Your task to perform on an android device: What's on Reddit Image 0: 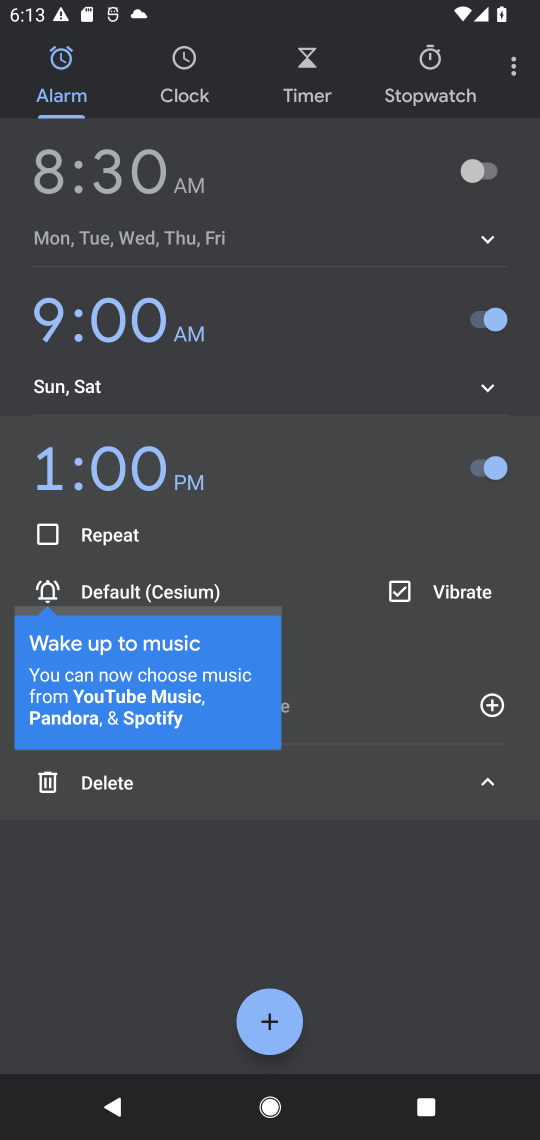
Step 0: press home button
Your task to perform on an android device: What's on Reddit Image 1: 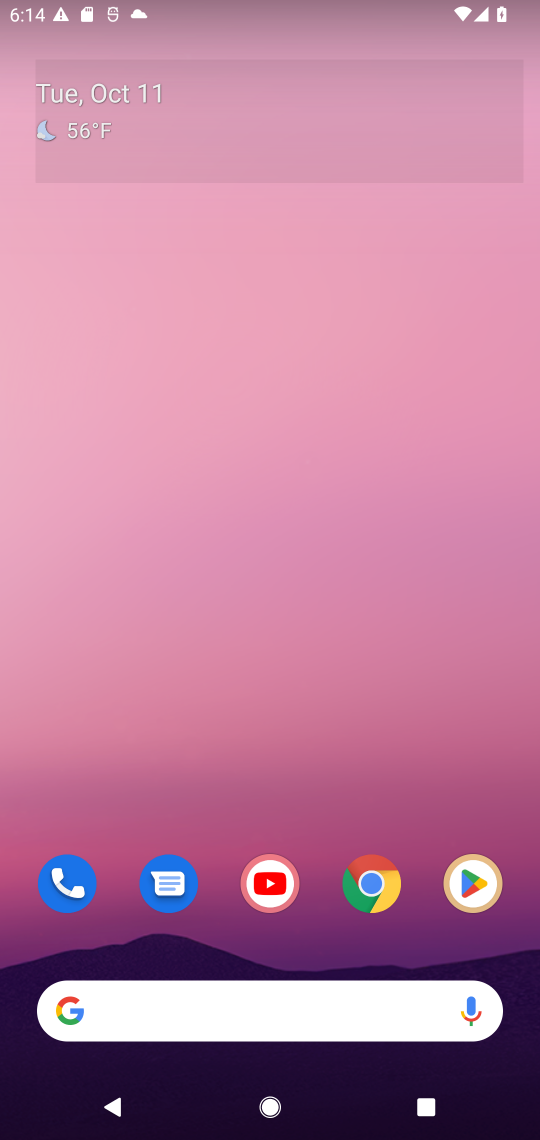
Step 1: drag from (328, 546) to (327, 254)
Your task to perform on an android device: What's on Reddit Image 2: 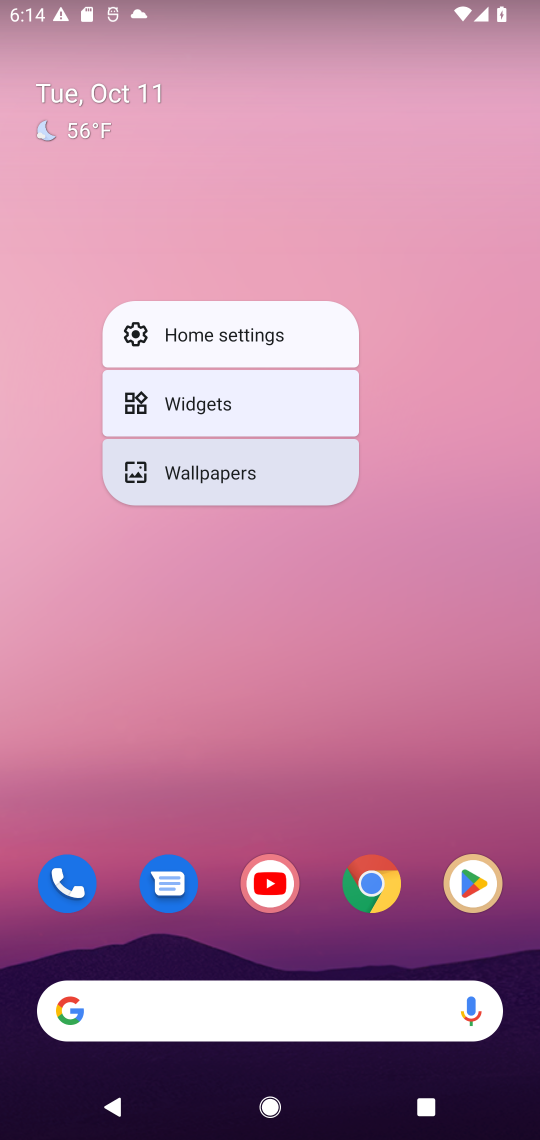
Step 2: click (474, 382)
Your task to perform on an android device: What's on Reddit Image 3: 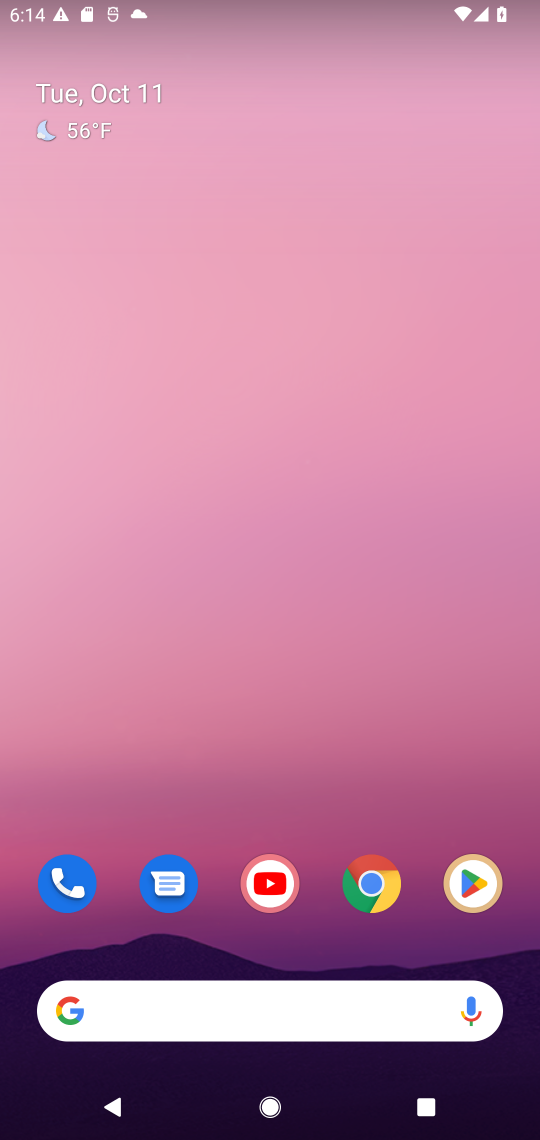
Step 3: drag from (335, 952) to (322, 370)
Your task to perform on an android device: What's on Reddit Image 4: 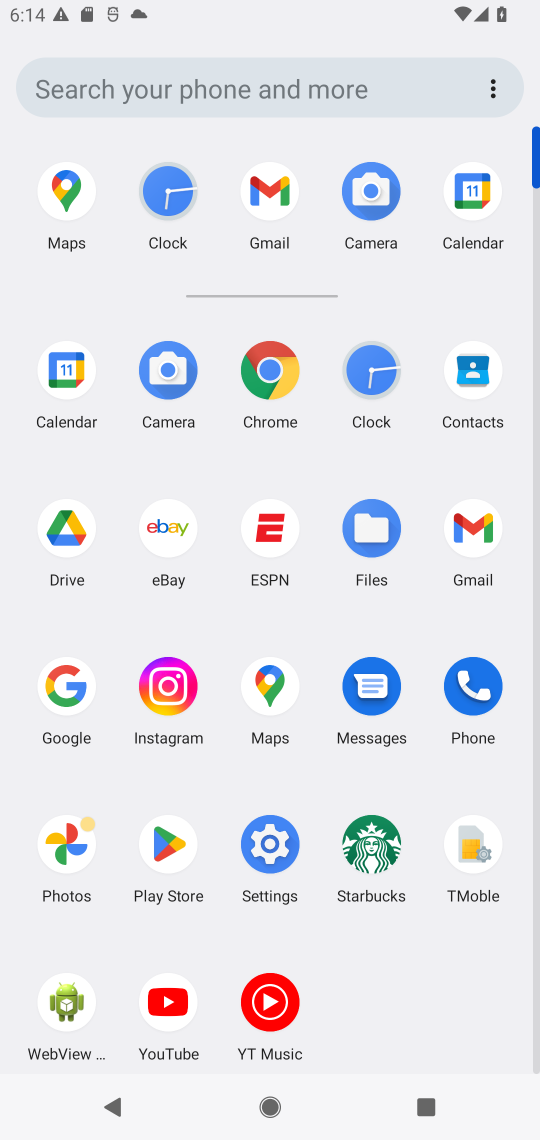
Step 4: click (266, 363)
Your task to perform on an android device: What's on Reddit Image 5: 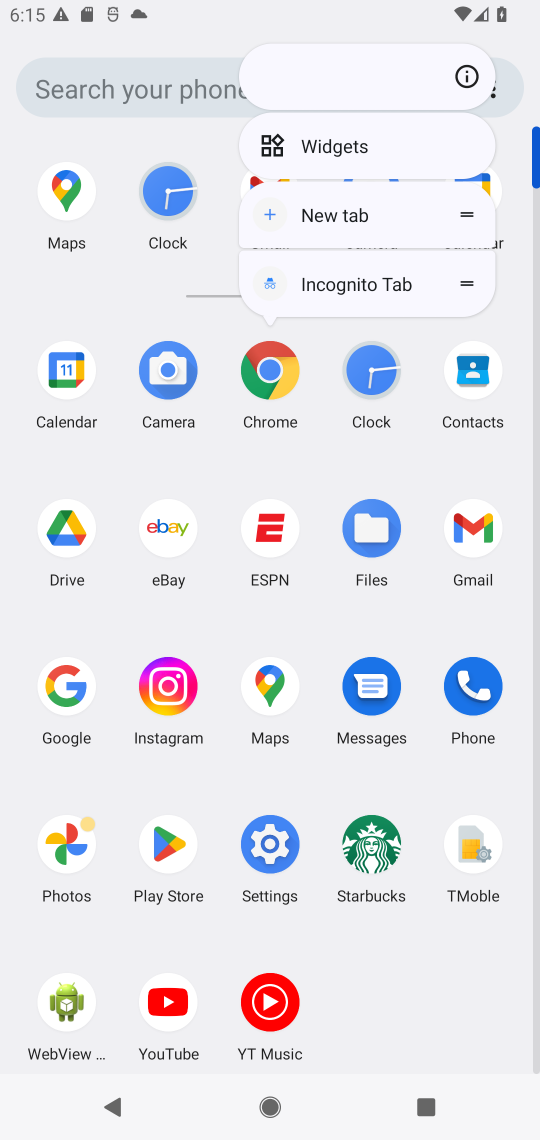
Step 5: click (270, 372)
Your task to perform on an android device: What's on Reddit Image 6: 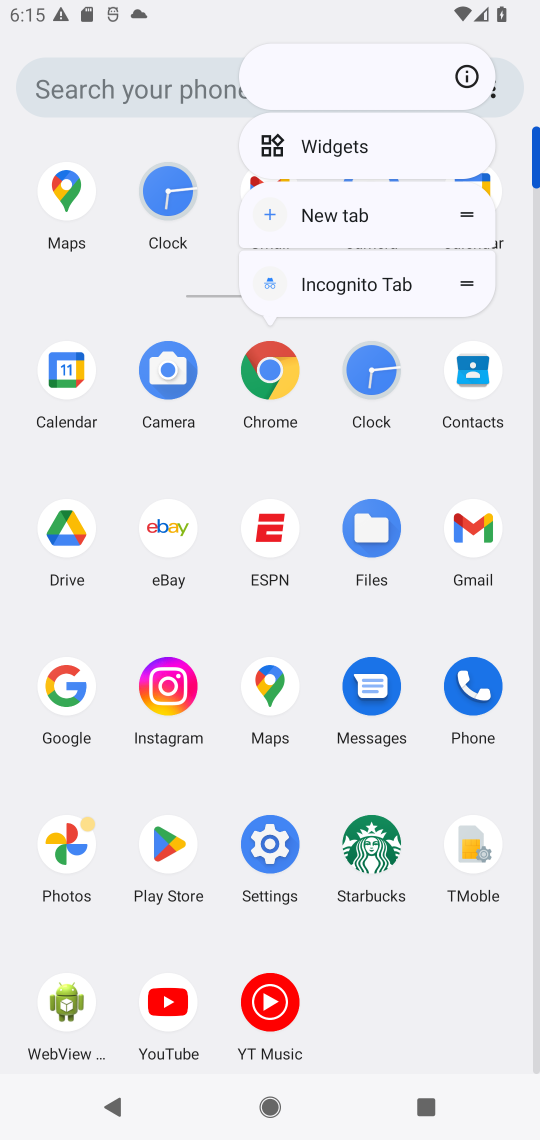
Step 6: click (270, 372)
Your task to perform on an android device: What's on Reddit Image 7: 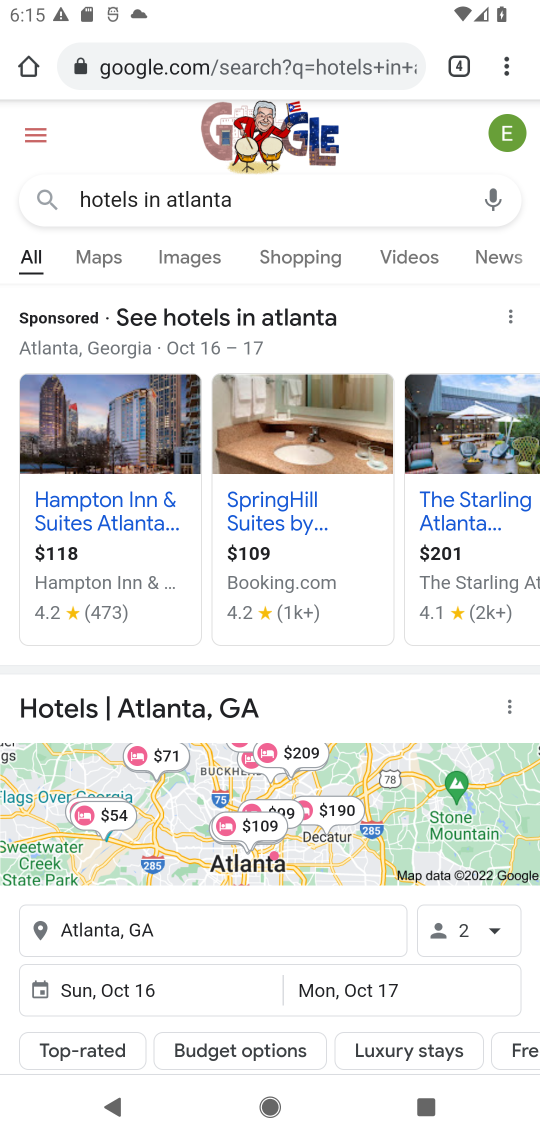
Step 7: click (260, 71)
Your task to perform on an android device: What's on Reddit Image 8: 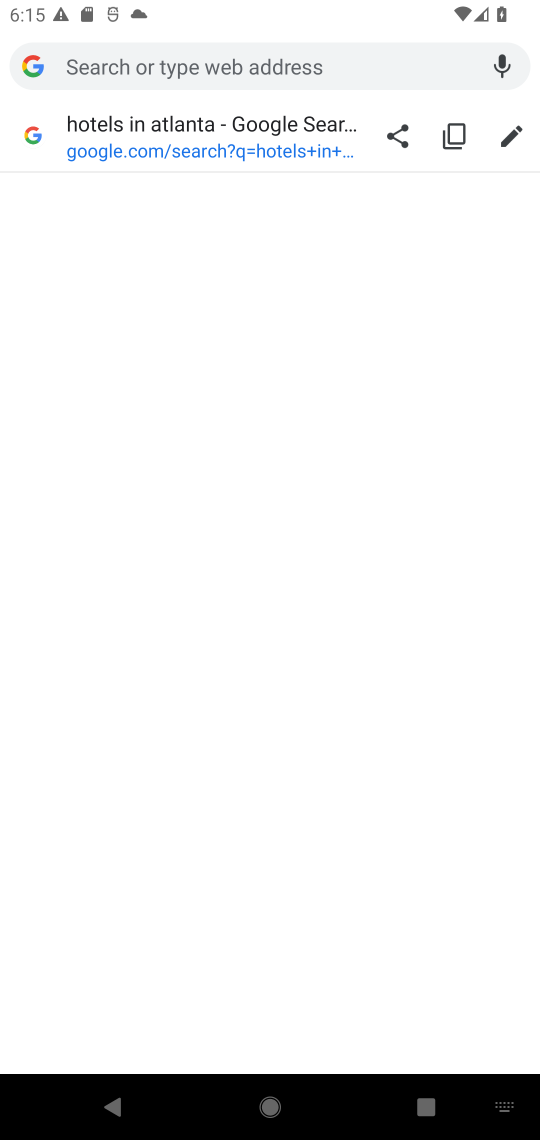
Step 8: type "reddit"
Your task to perform on an android device: What's on Reddit Image 9: 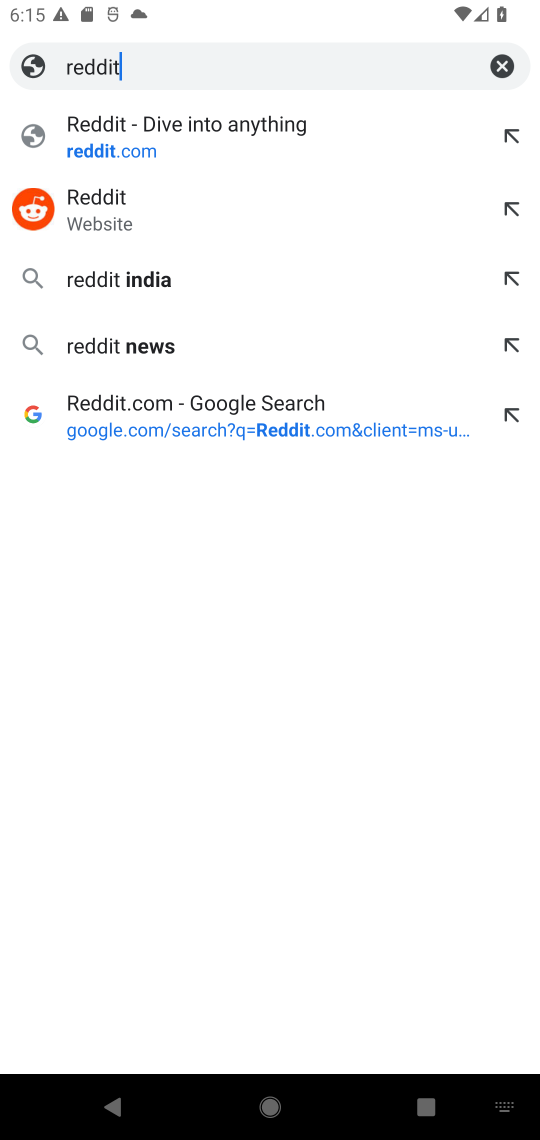
Step 9: click (136, 199)
Your task to perform on an android device: What's on Reddit Image 10: 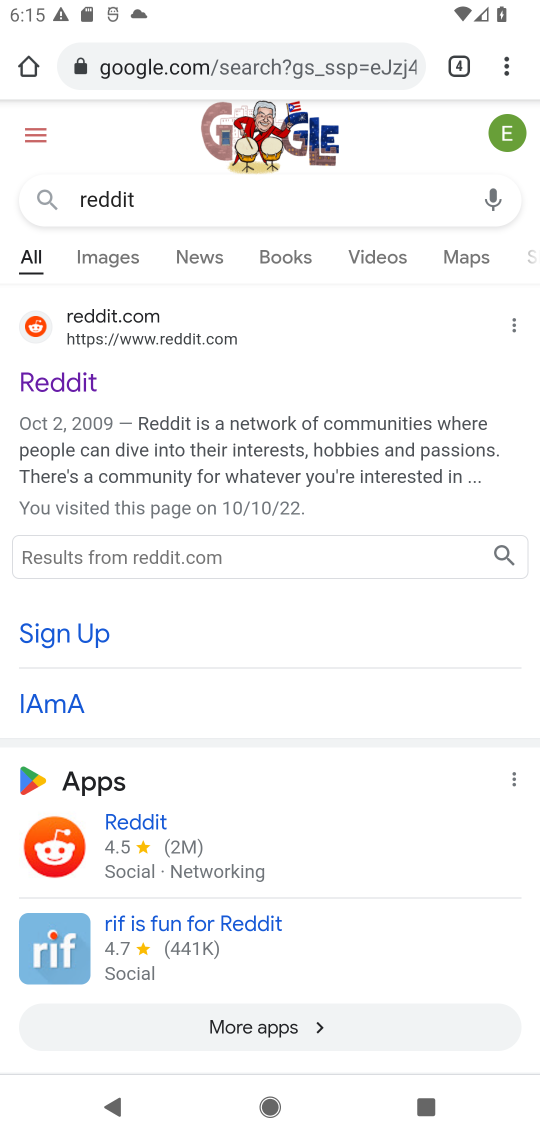
Step 10: click (73, 371)
Your task to perform on an android device: What's on Reddit Image 11: 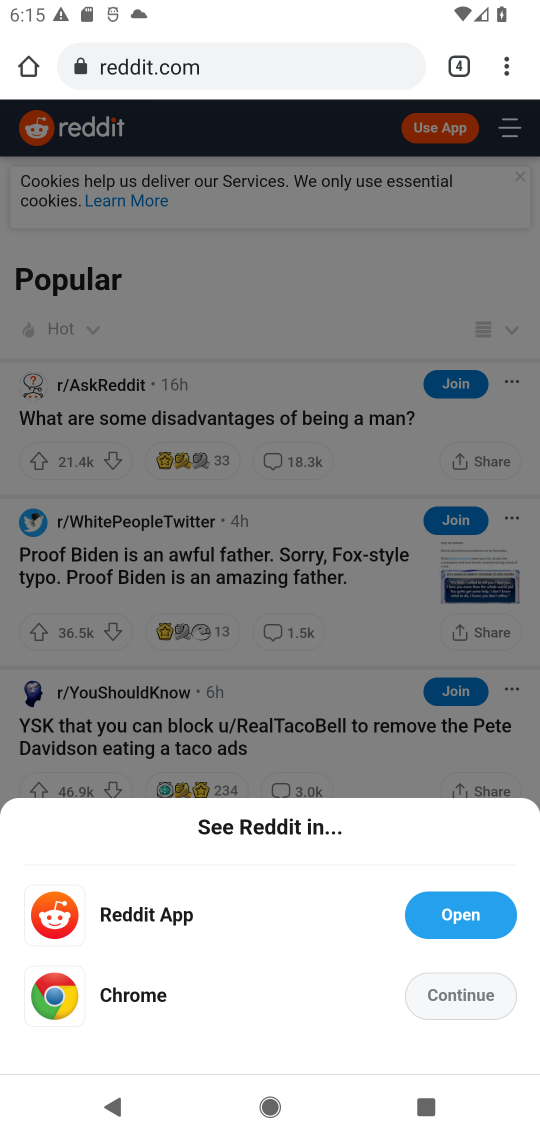
Step 11: click (463, 984)
Your task to perform on an android device: What's on Reddit Image 12: 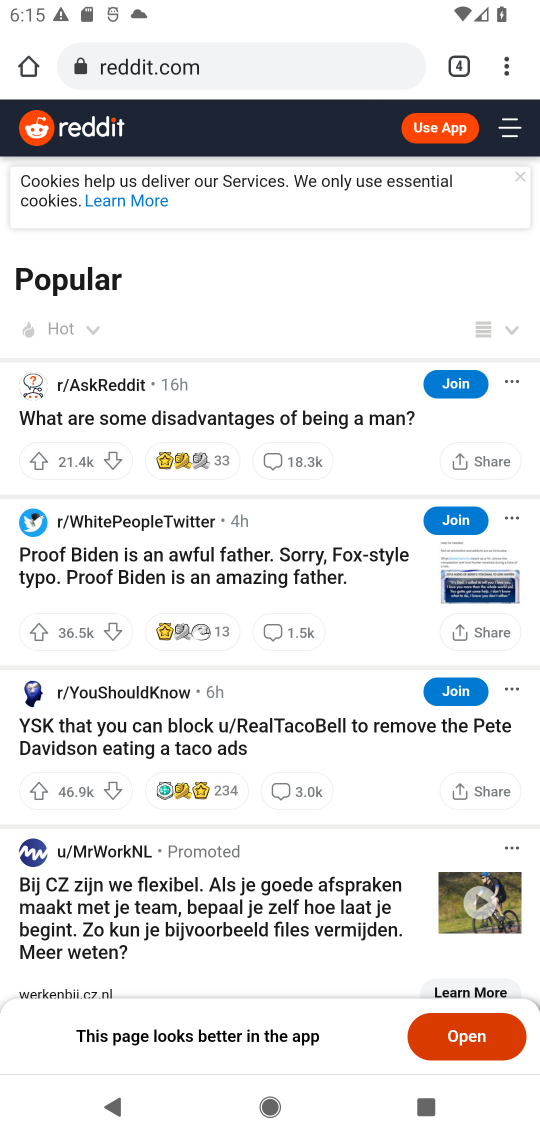
Step 12: task complete